Your task to perform on an android device: Open Chrome and go to settings Image 0: 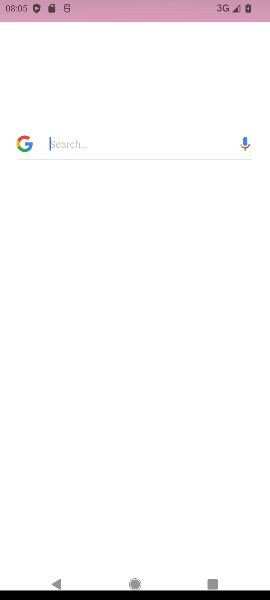
Step 0: press home button
Your task to perform on an android device: Open Chrome and go to settings Image 1: 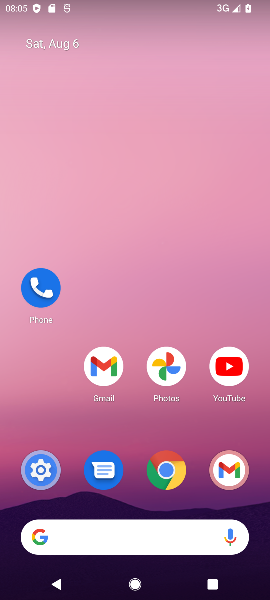
Step 1: click (179, 461)
Your task to perform on an android device: Open Chrome and go to settings Image 2: 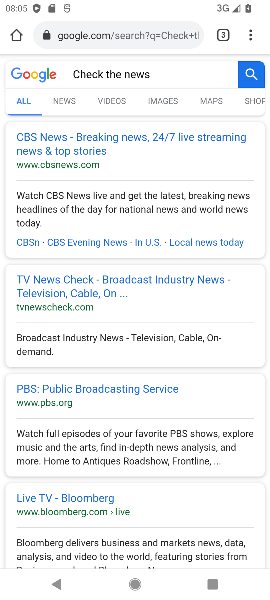
Step 2: click (247, 39)
Your task to perform on an android device: Open Chrome and go to settings Image 3: 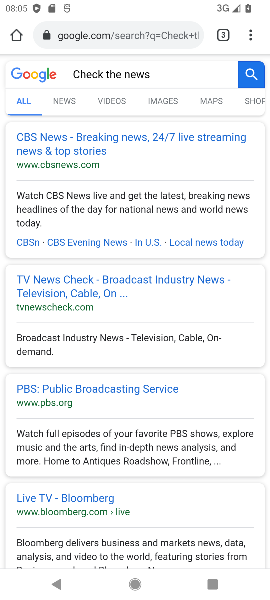
Step 3: drag from (247, 39) to (155, 488)
Your task to perform on an android device: Open Chrome and go to settings Image 4: 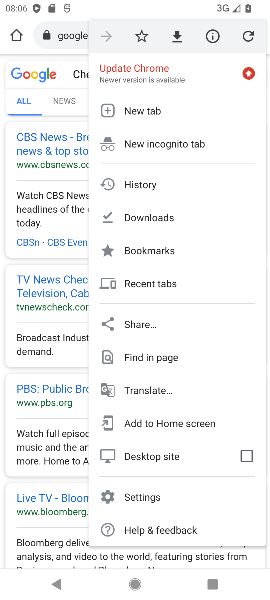
Step 4: click (150, 496)
Your task to perform on an android device: Open Chrome and go to settings Image 5: 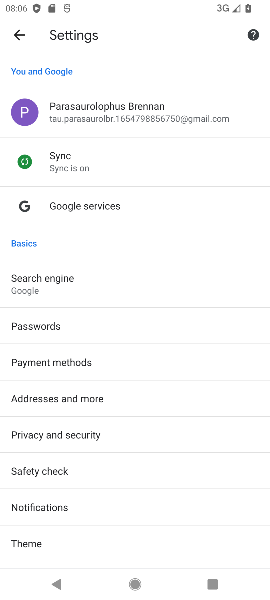
Step 5: task complete